Your task to perform on an android device: stop showing notifications on the lock screen Image 0: 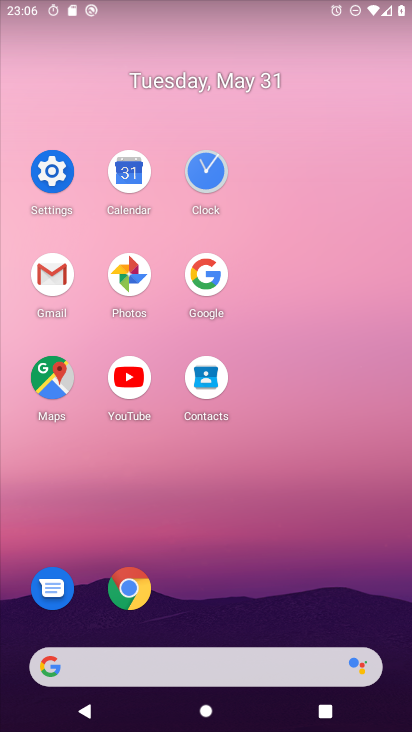
Step 0: click (58, 173)
Your task to perform on an android device: stop showing notifications on the lock screen Image 1: 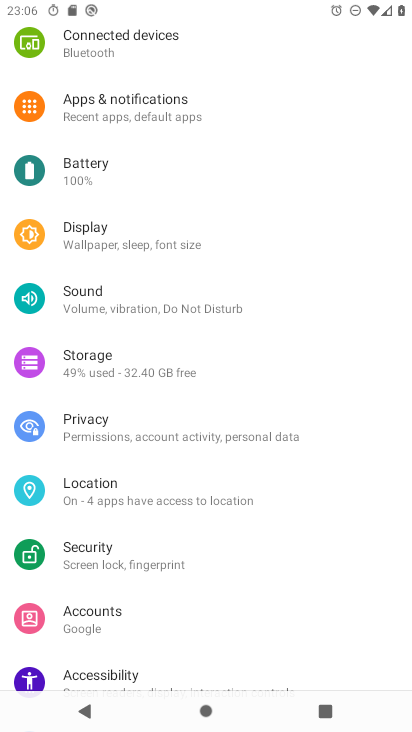
Step 1: click (174, 103)
Your task to perform on an android device: stop showing notifications on the lock screen Image 2: 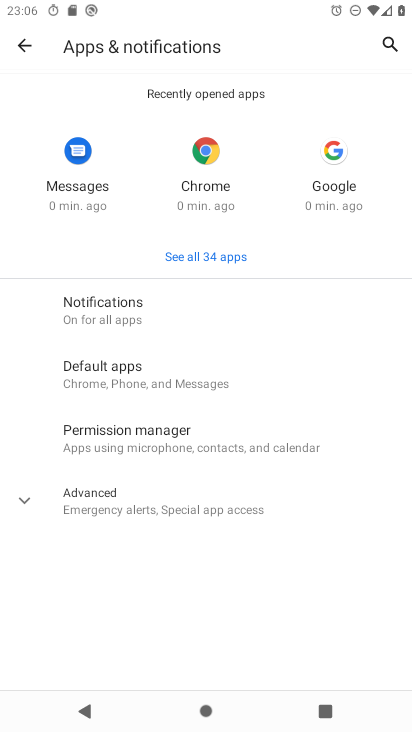
Step 2: click (189, 312)
Your task to perform on an android device: stop showing notifications on the lock screen Image 3: 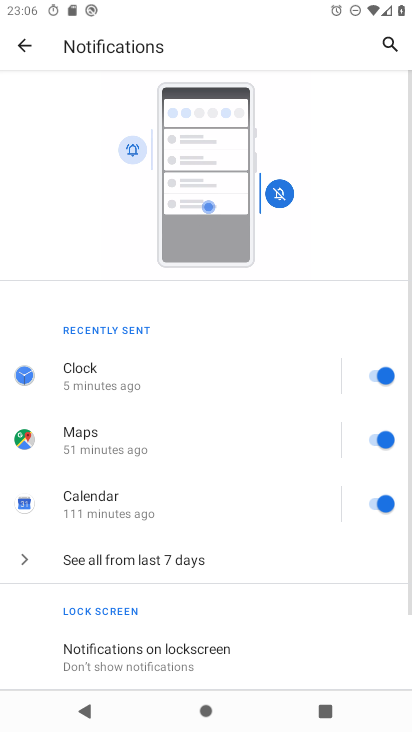
Step 3: click (225, 654)
Your task to perform on an android device: stop showing notifications on the lock screen Image 4: 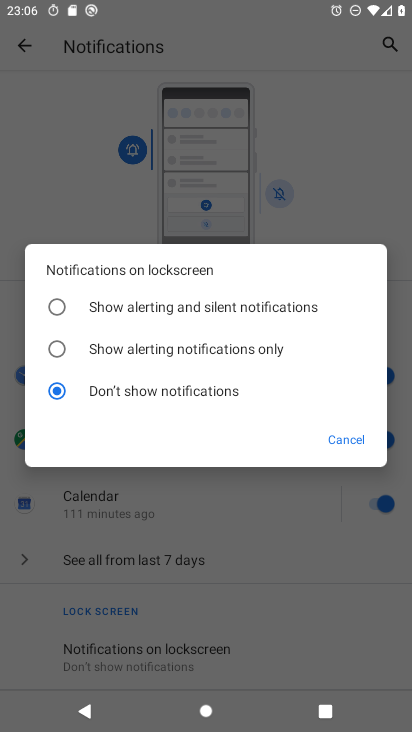
Step 4: task complete